Your task to perform on an android device: Open accessibility settings Image 0: 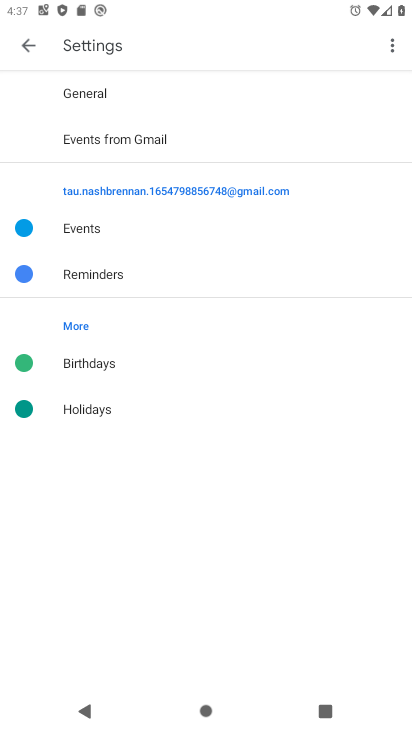
Step 0: press home button
Your task to perform on an android device: Open accessibility settings Image 1: 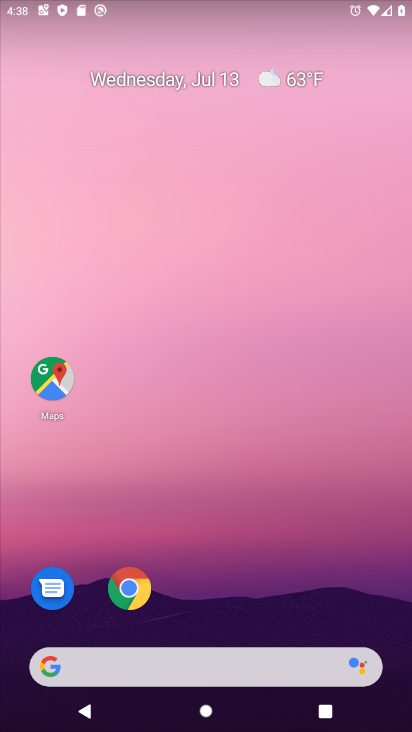
Step 1: drag from (227, 662) to (192, 120)
Your task to perform on an android device: Open accessibility settings Image 2: 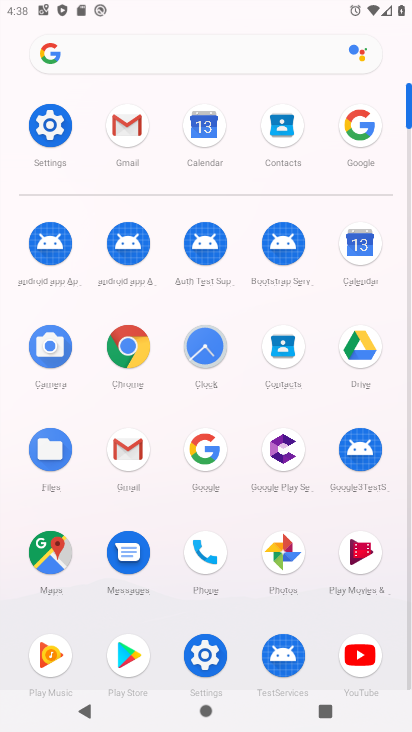
Step 2: click (50, 121)
Your task to perform on an android device: Open accessibility settings Image 3: 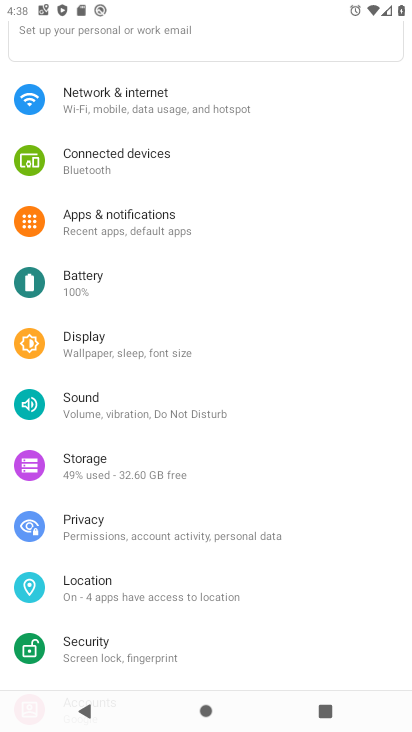
Step 3: drag from (148, 559) to (173, 404)
Your task to perform on an android device: Open accessibility settings Image 4: 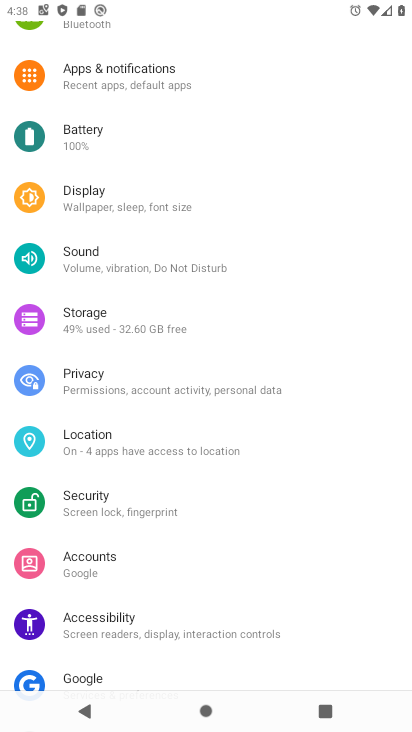
Step 4: click (171, 623)
Your task to perform on an android device: Open accessibility settings Image 5: 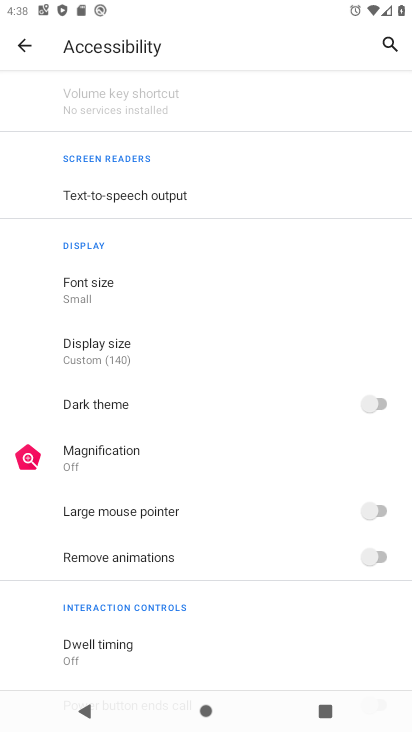
Step 5: task complete